Your task to perform on an android device: set default search engine in the chrome app Image 0: 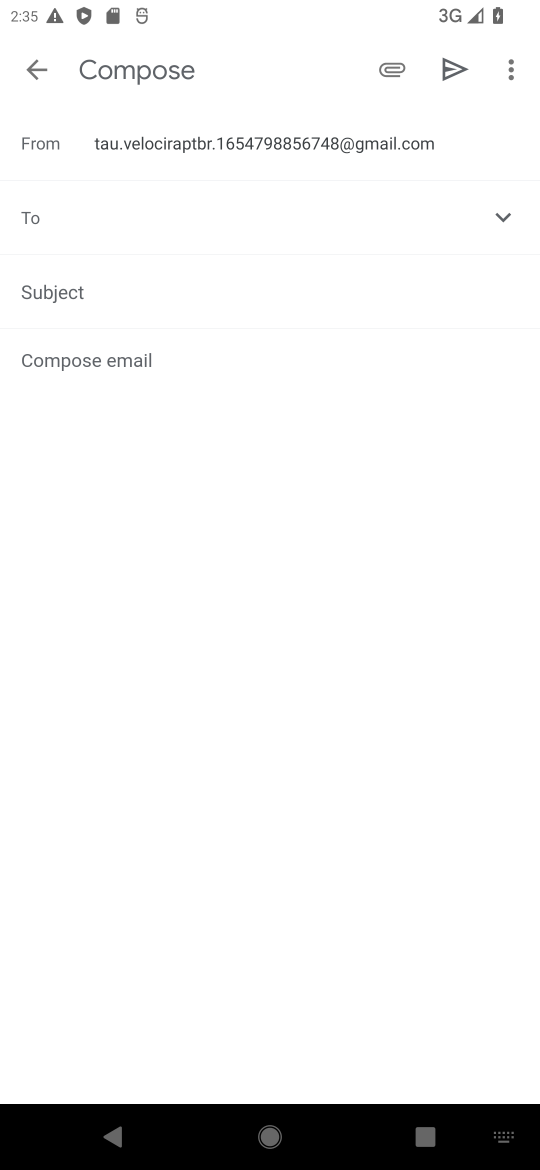
Step 0: press home button
Your task to perform on an android device: set default search engine in the chrome app Image 1: 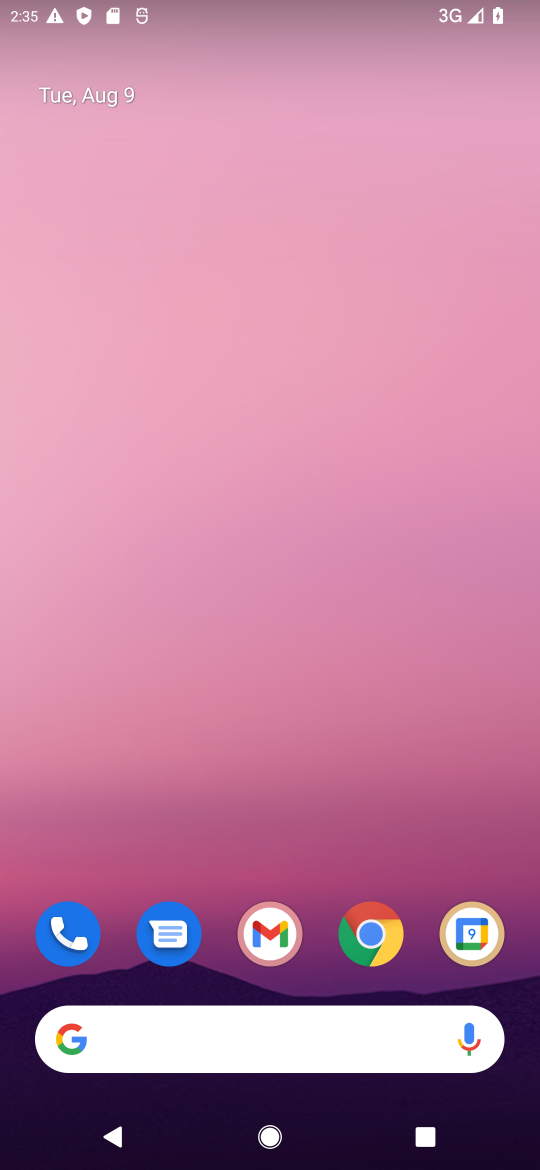
Step 1: click (354, 918)
Your task to perform on an android device: set default search engine in the chrome app Image 2: 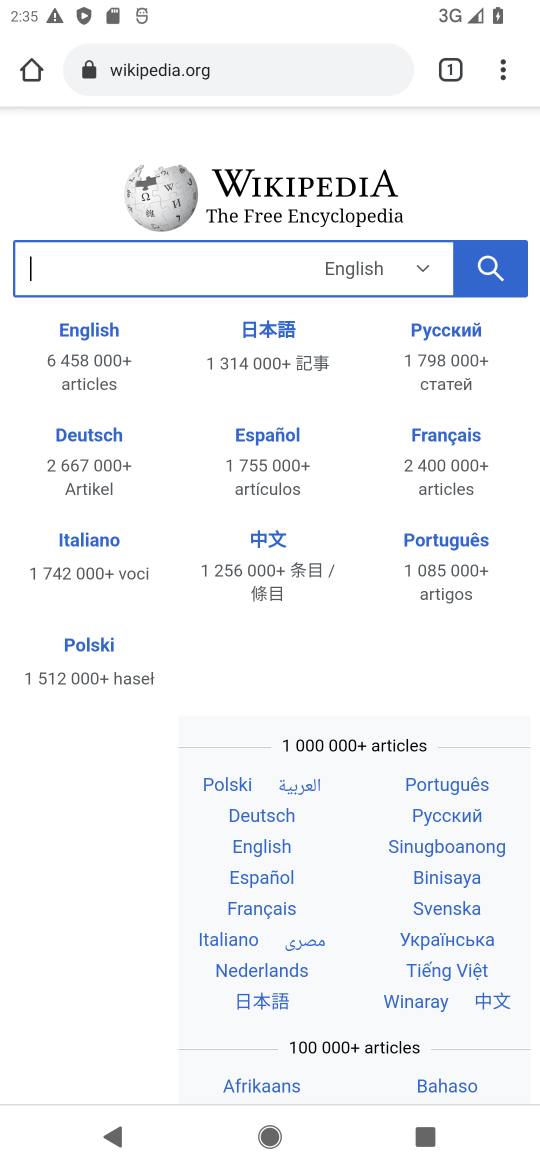
Step 2: click (507, 62)
Your task to perform on an android device: set default search engine in the chrome app Image 3: 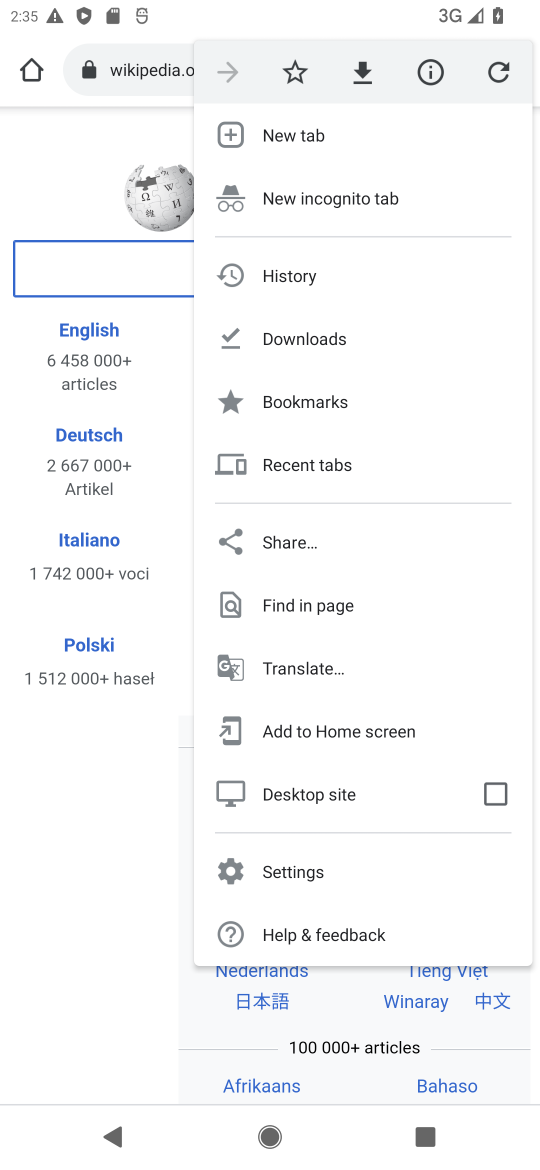
Step 3: click (374, 852)
Your task to perform on an android device: set default search engine in the chrome app Image 4: 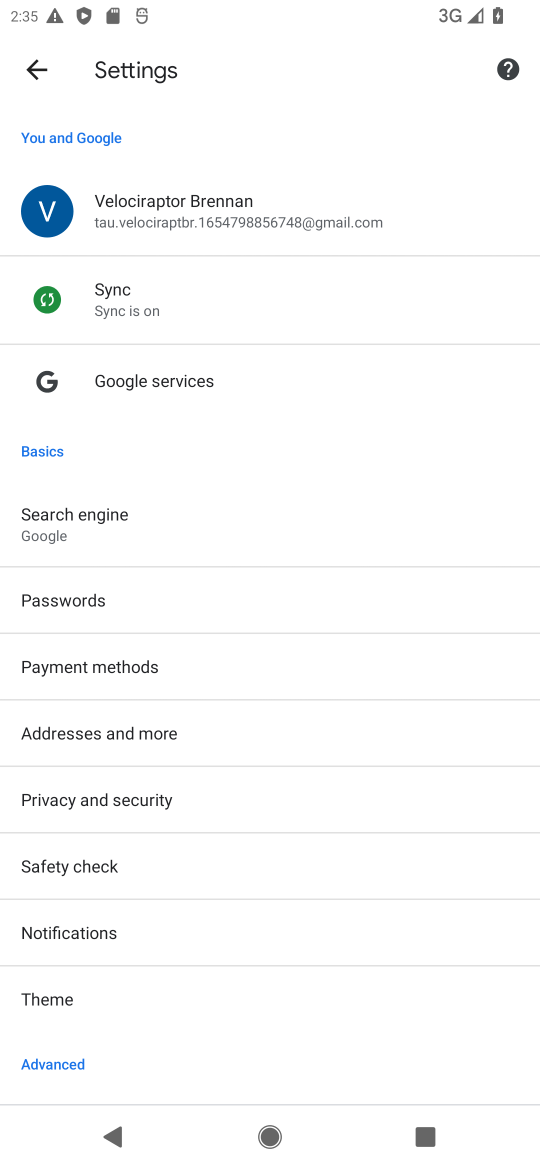
Step 4: click (153, 496)
Your task to perform on an android device: set default search engine in the chrome app Image 5: 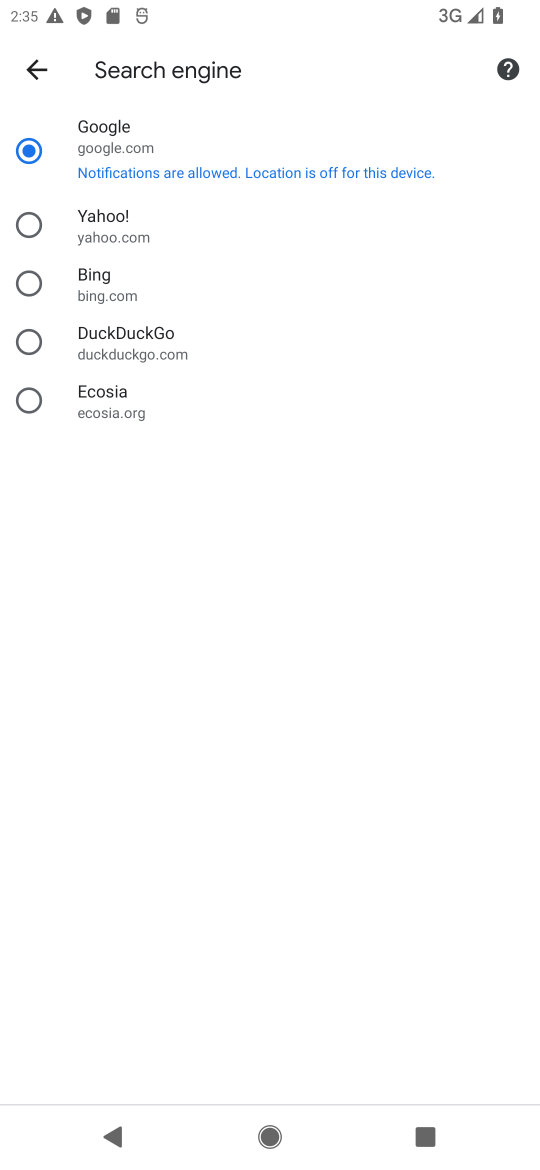
Step 5: click (133, 219)
Your task to perform on an android device: set default search engine in the chrome app Image 6: 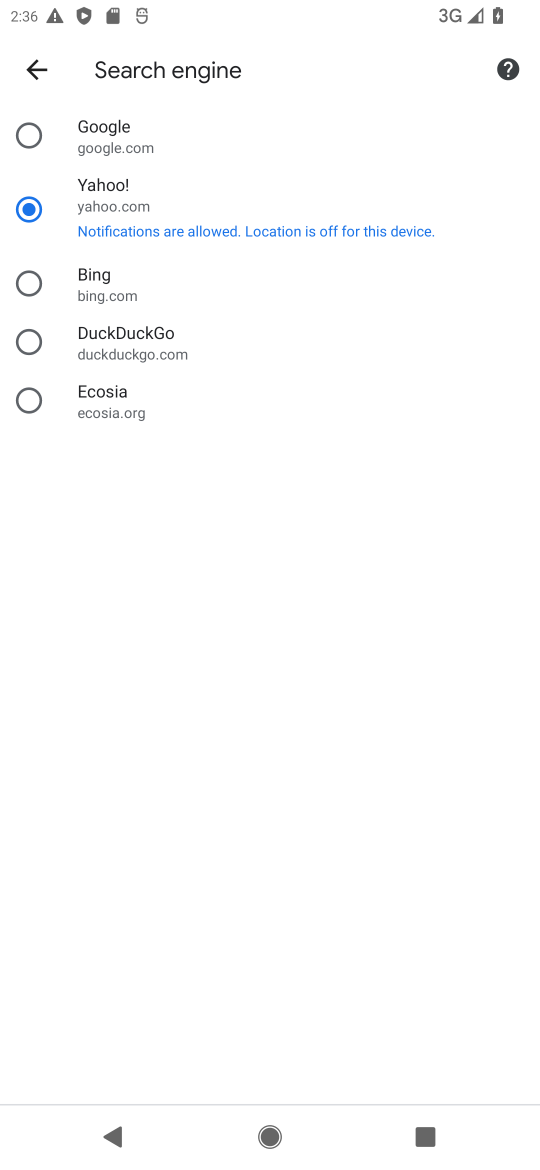
Step 6: task complete